Your task to perform on an android device: delete a single message in the gmail app Image 0: 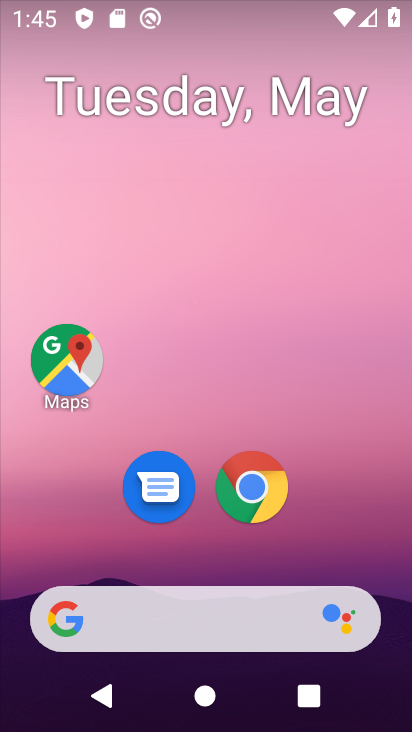
Step 0: drag from (198, 558) to (233, 45)
Your task to perform on an android device: delete a single message in the gmail app Image 1: 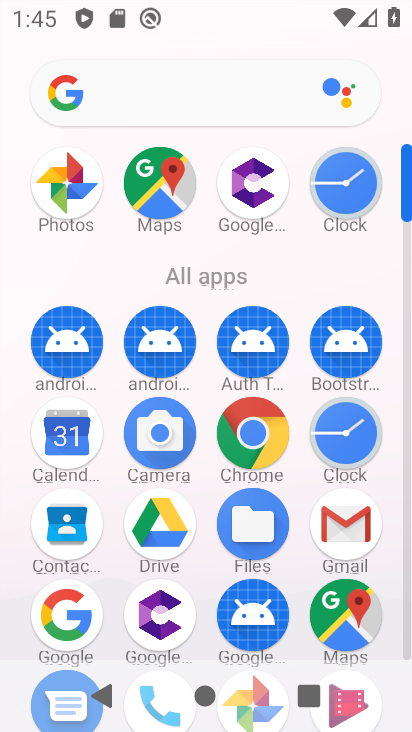
Step 1: click (344, 523)
Your task to perform on an android device: delete a single message in the gmail app Image 2: 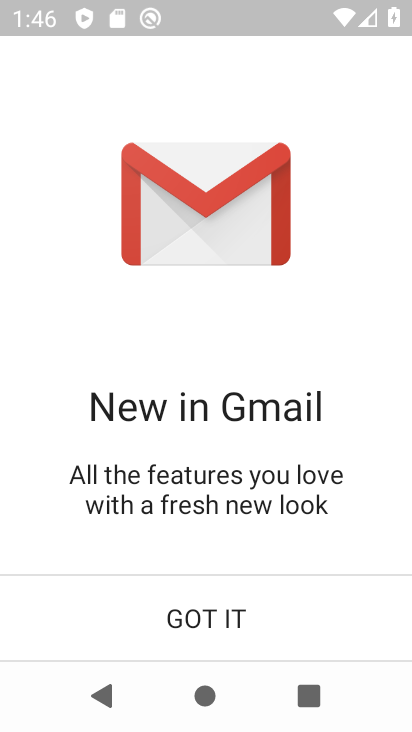
Step 2: click (199, 610)
Your task to perform on an android device: delete a single message in the gmail app Image 3: 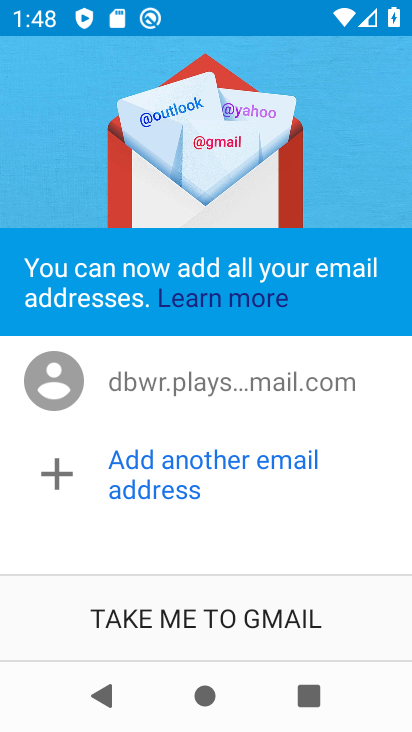
Step 3: press home button
Your task to perform on an android device: delete a single message in the gmail app Image 4: 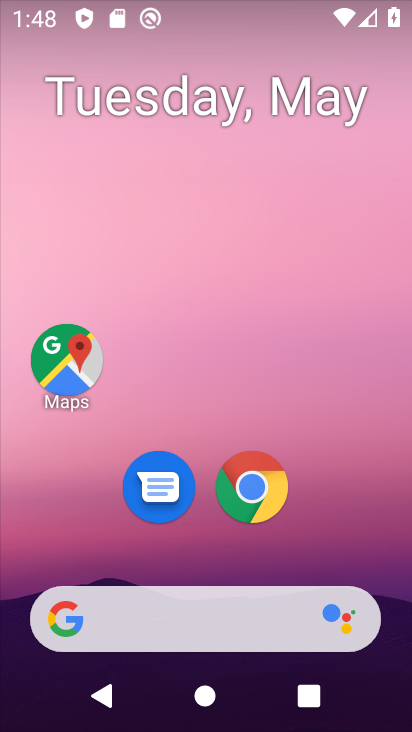
Step 4: press home button
Your task to perform on an android device: delete a single message in the gmail app Image 5: 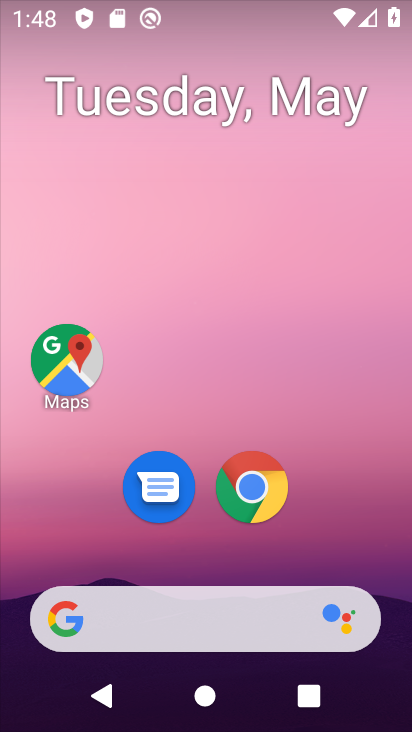
Step 5: drag from (179, 521) to (227, 51)
Your task to perform on an android device: delete a single message in the gmail app Image 6: 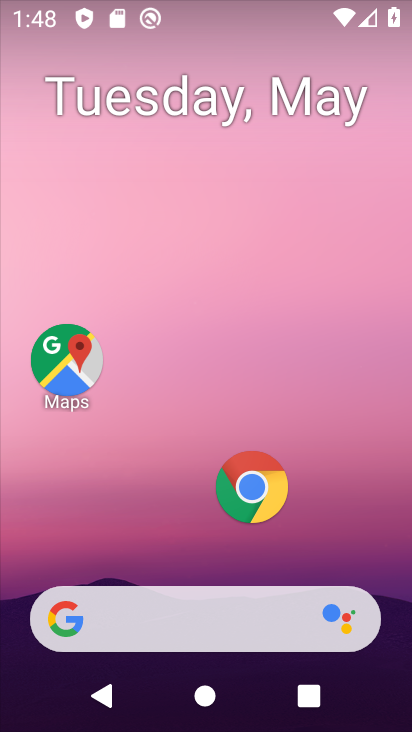
Step 6: click (276, 579)
Your task to perform on an android device: delete a single message in the gmail app Image 7: 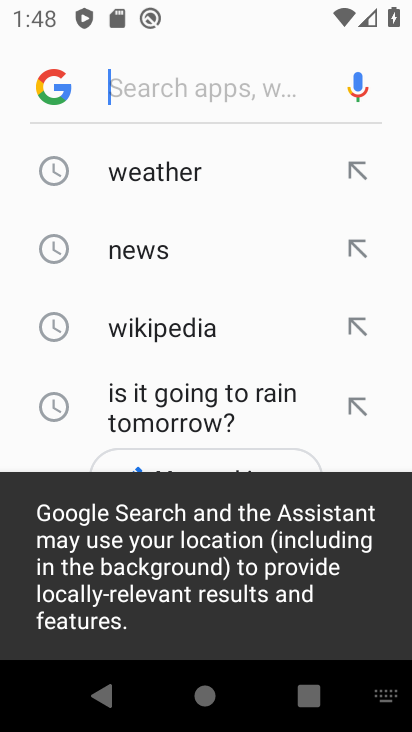
Step 7: drag from (206, 558) to (195, 119)
Your task to perform on an android device: delete a single message in the gmail app Image 8: 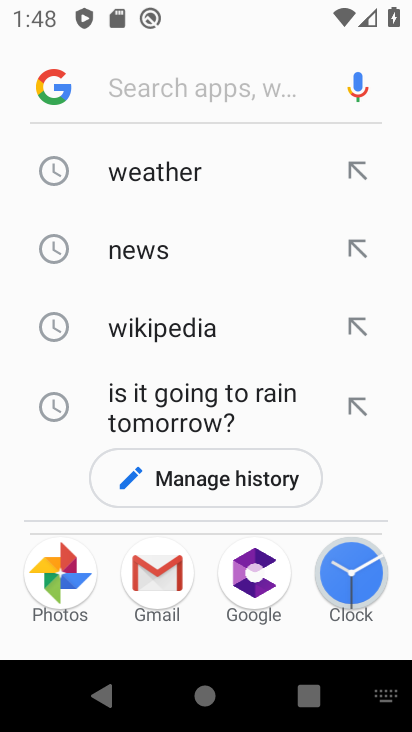
Step 8: click (277, 178)
Your task to perform on an android device: delete a single message in the gmail app Image 9: 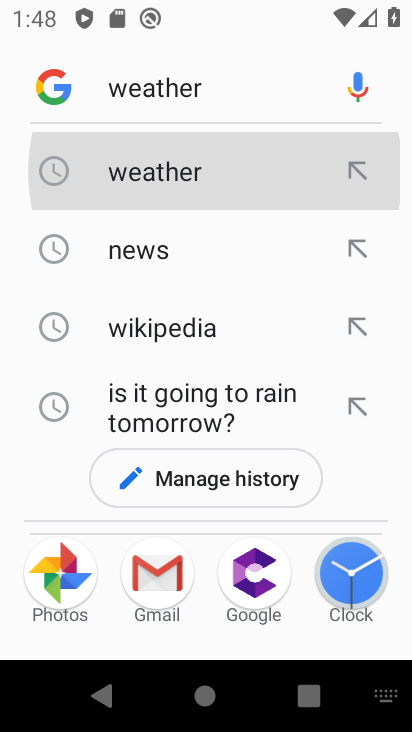
Step 9: press home button
Your task to perform on an android device: delete a single message in the gmail app Image 10: 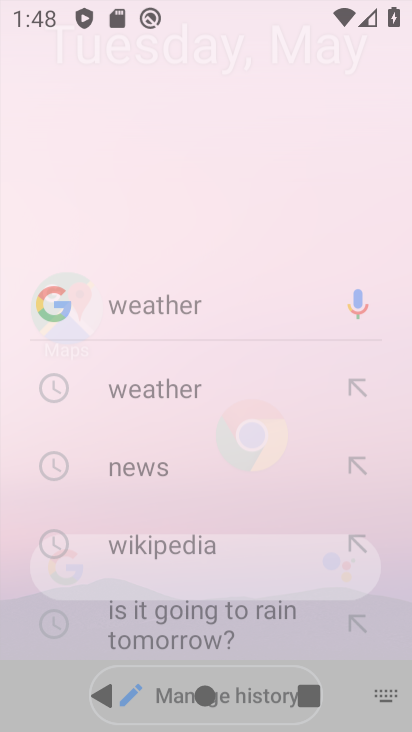
Step 10: click (157, 592)
Your task to perform on an android device: delete a single message in the gmail app Image 11: 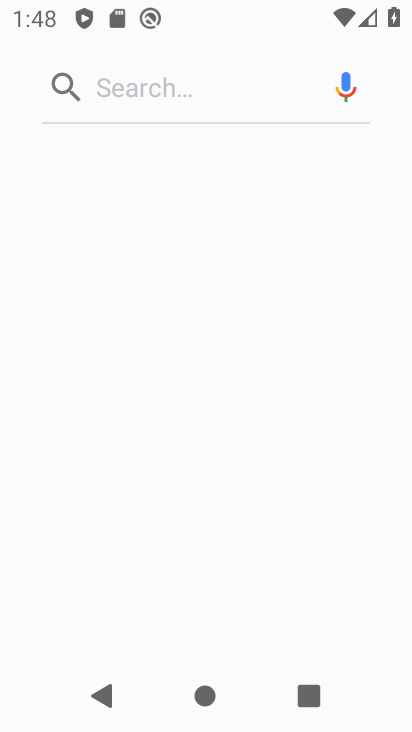
Step 11: press home button
Your task to perform on an android device: delete a single message in the gmail app Image 12: 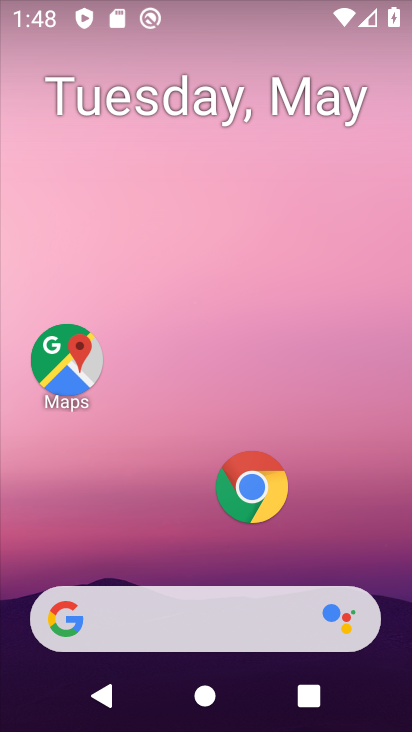
Step 12: drag from (171, 548) to (190, 249)
Your task to perform on an android device: delete a single message in the gmail app Image 13: 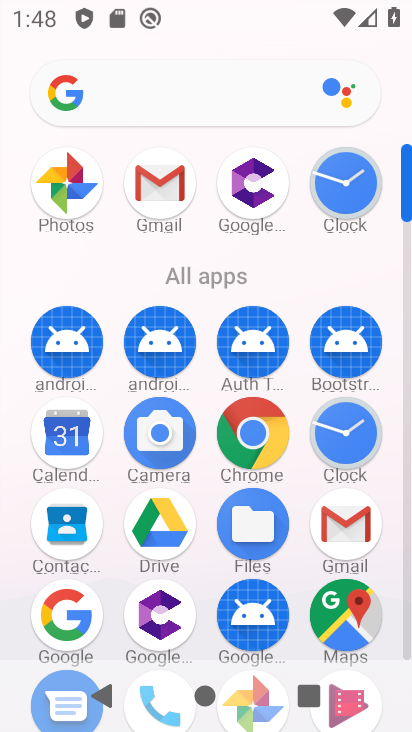
Step 13: click (165, 201)
Your task to perform on an android device: delete a single message in the gmail app Image 14: 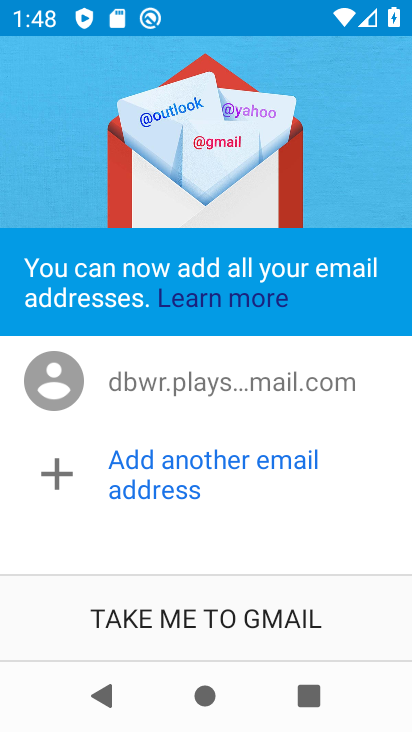
Step 14: click (199, 602)
Your task to perform on an android device: delete a single message in the gmail app Image 15: 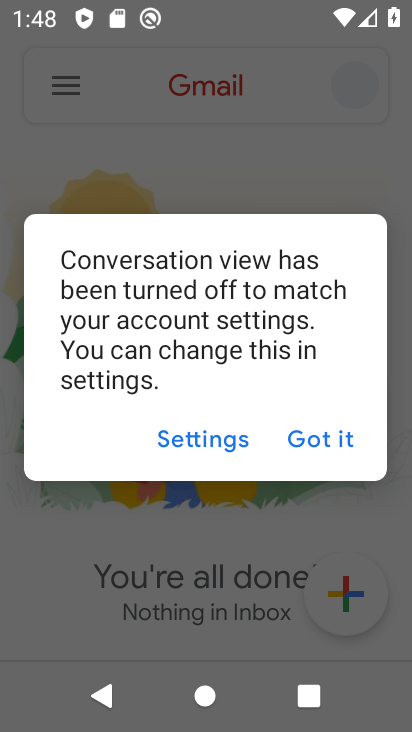
Step 15: click (302, 437)
Your task to perform on an android device: delete a single message in the gmail app Image 16: 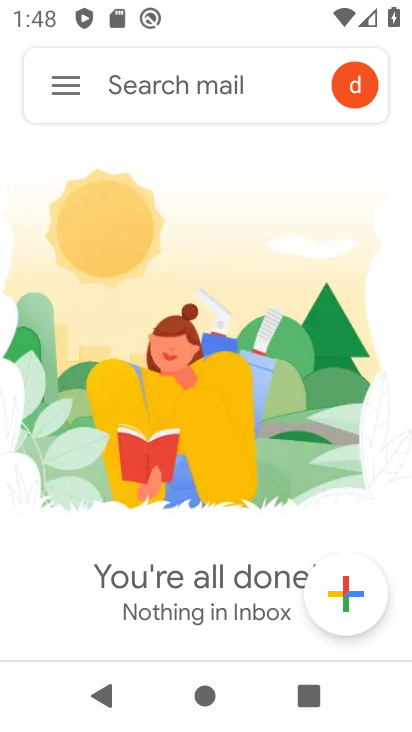
Step 16: click (67, 85)
Your task to perform on an android device: delete a single message in the gmail app Image 17: 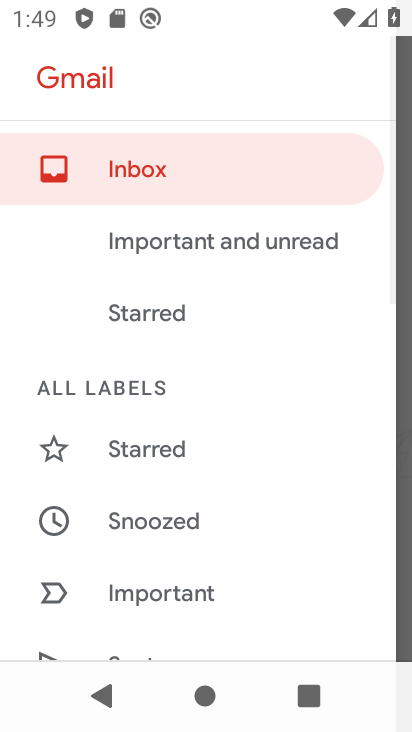
Step 17: drag from (155, 571) to (177, 276)
Your task to perform on an android device: delete a single message in the gmail app Image 18: 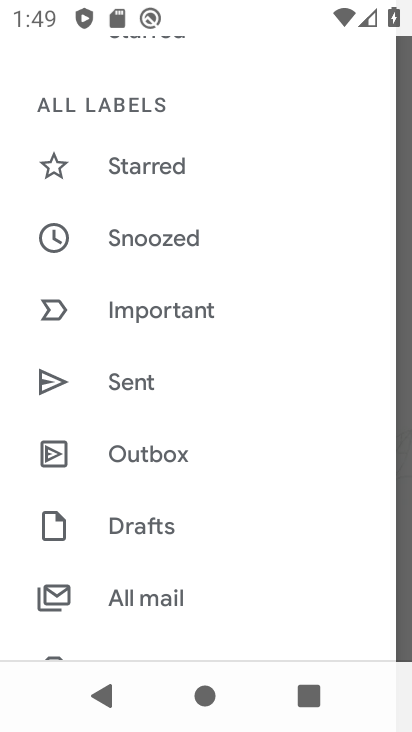
Step 18: click (156, 598)
Your task to perform on an android device: delete a single message in the gmail app Image 19: 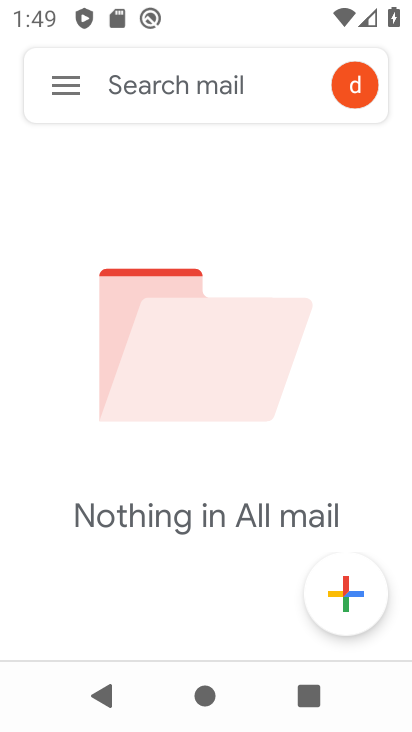
Step 19: task complete